Your task to perform on an android device: Go to Reddit.com Image 0: 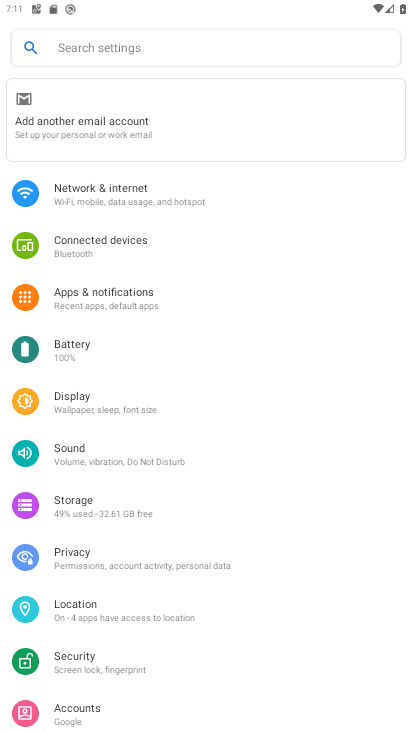
Step 0: press home button
Your task to perform on an android device: Go to Reddit.com Image 1: 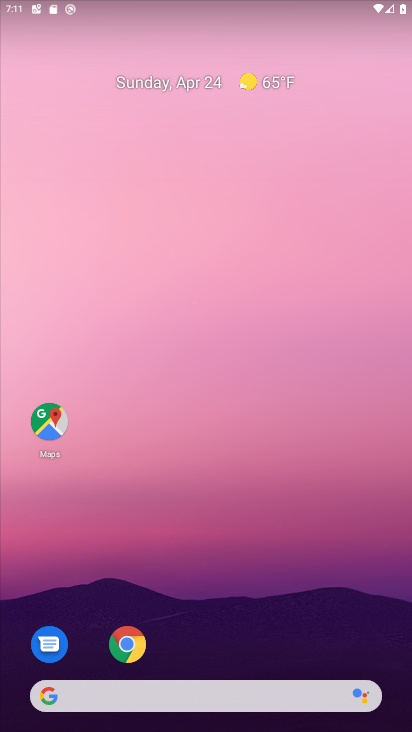
Step 1: click (128, 647)
Your task to perform on an android device: Go to Reddit.com Image 2: 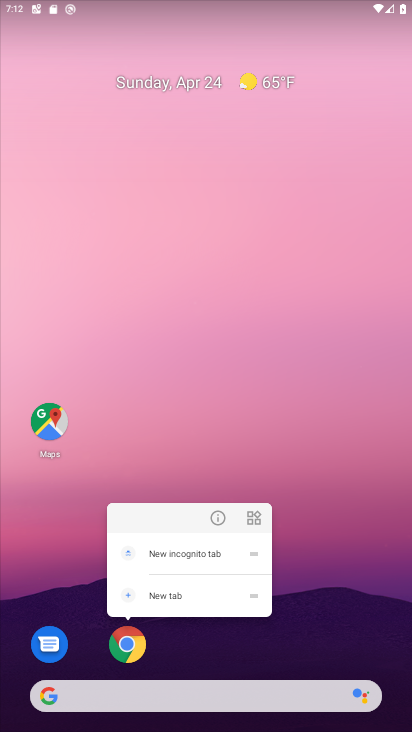
Step 2: click (238, 656)
Your task to perform on an android device: Go to Reddit.com Image 3: 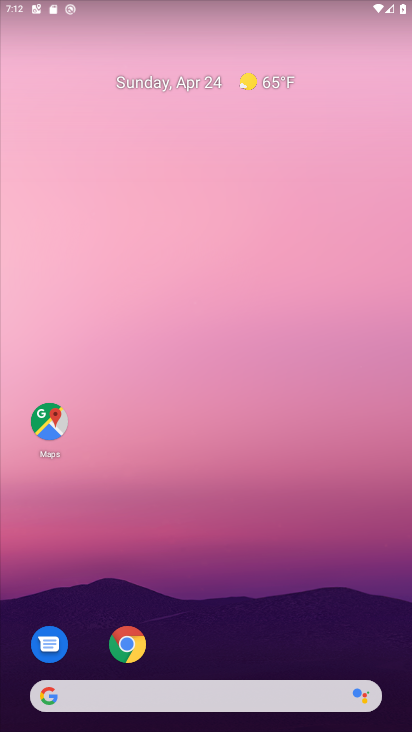
Step 3: drag from (287, 661) to (286, 120)
Your task to perform on an android device: Go to Reddit.com Image 4: 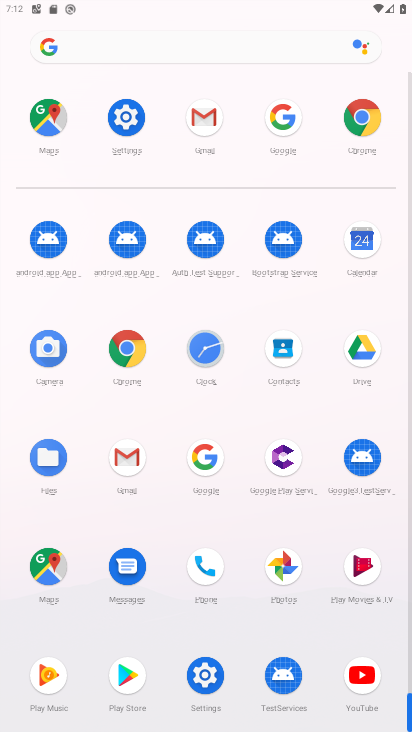
Step 4: click (119, 344)
Your task to perform on an android device: Go to Reddit.com Image 5: 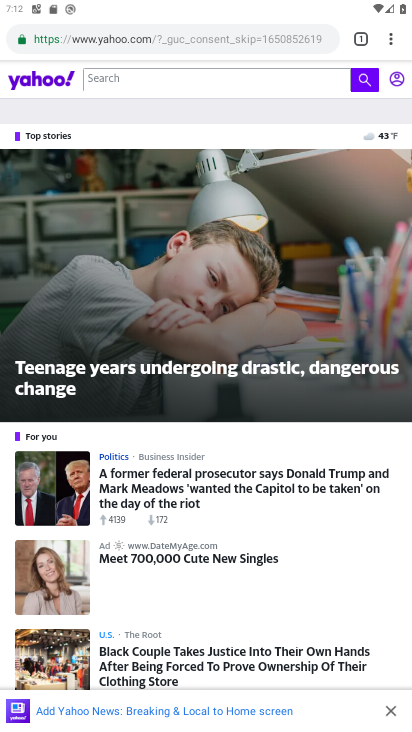
Step 5: click (359, 35)
Your task to perform on an android device: Go to Reddit.com Image 6: 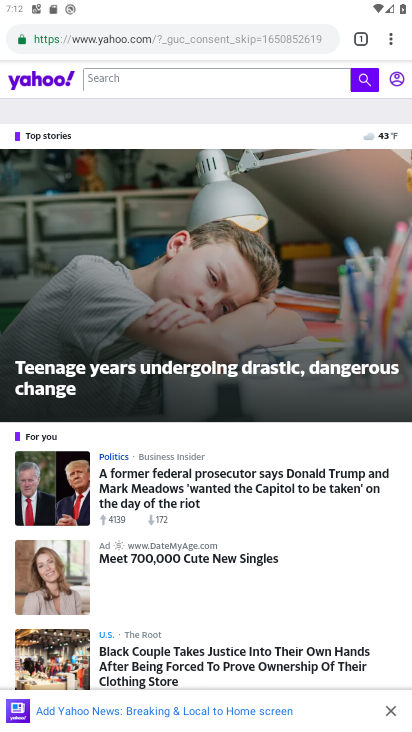
Step 6: click (358, 35)
Your task to perform on an android device: Go to Reddit.com Image 7: 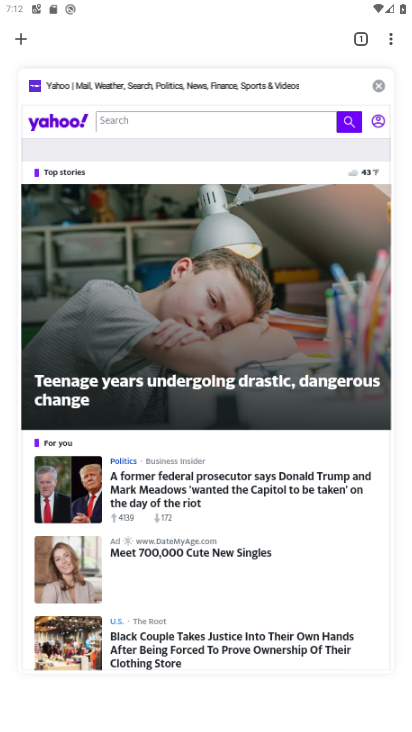
Step 7: click (377, 87)
Your task to perform on an android device: Go to Reddit.com Image 8: 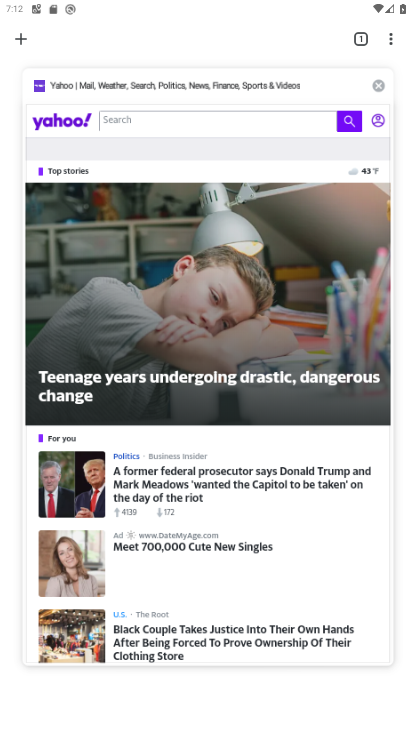
Step 8: click (21, 42)
Your task to perform on an android device: Go to Reddit.com Image 9: 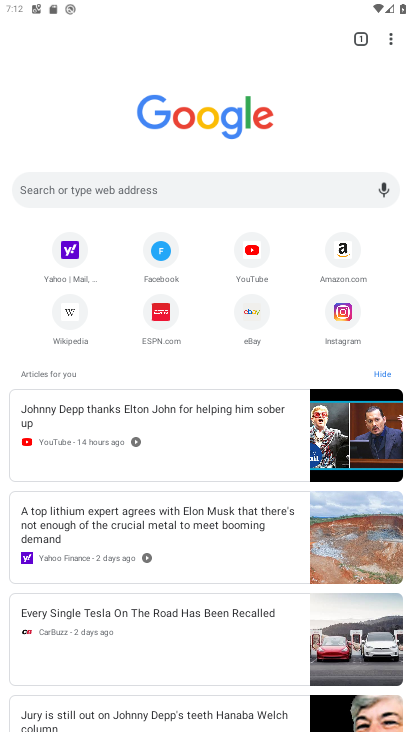
Step 9: click (97, 191)
Your task to perform on an android device: Go to Reddit.com Image 10: 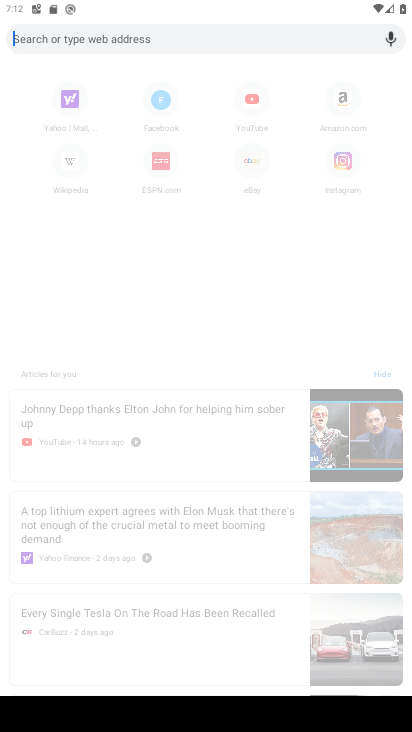
Step 10: type "reddit"
Your task to perform on an android device: Go to Reddit.com Image 11: 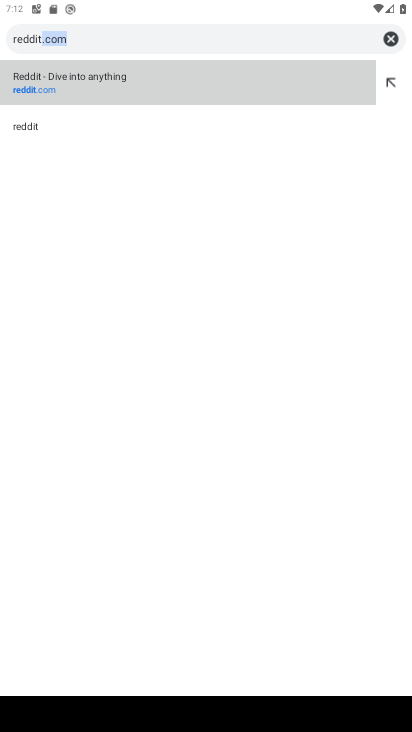
Step 11: click (64, 79)
Your task to perform on an android device: Go to Reddit.com Image 12: 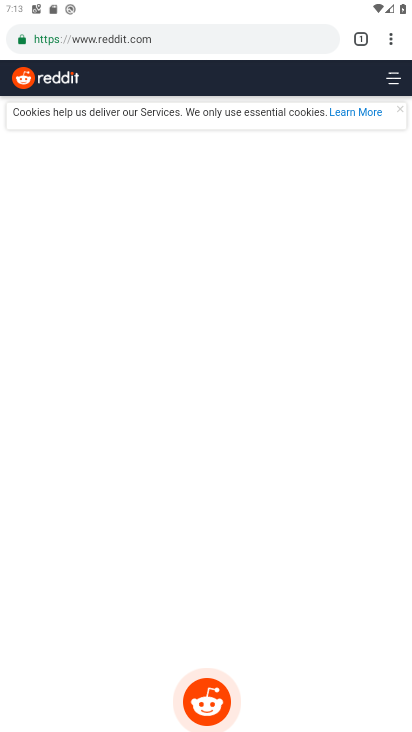
Step 12: task complete